Your task to perform on an android device: Open accessibility settings Image 0: 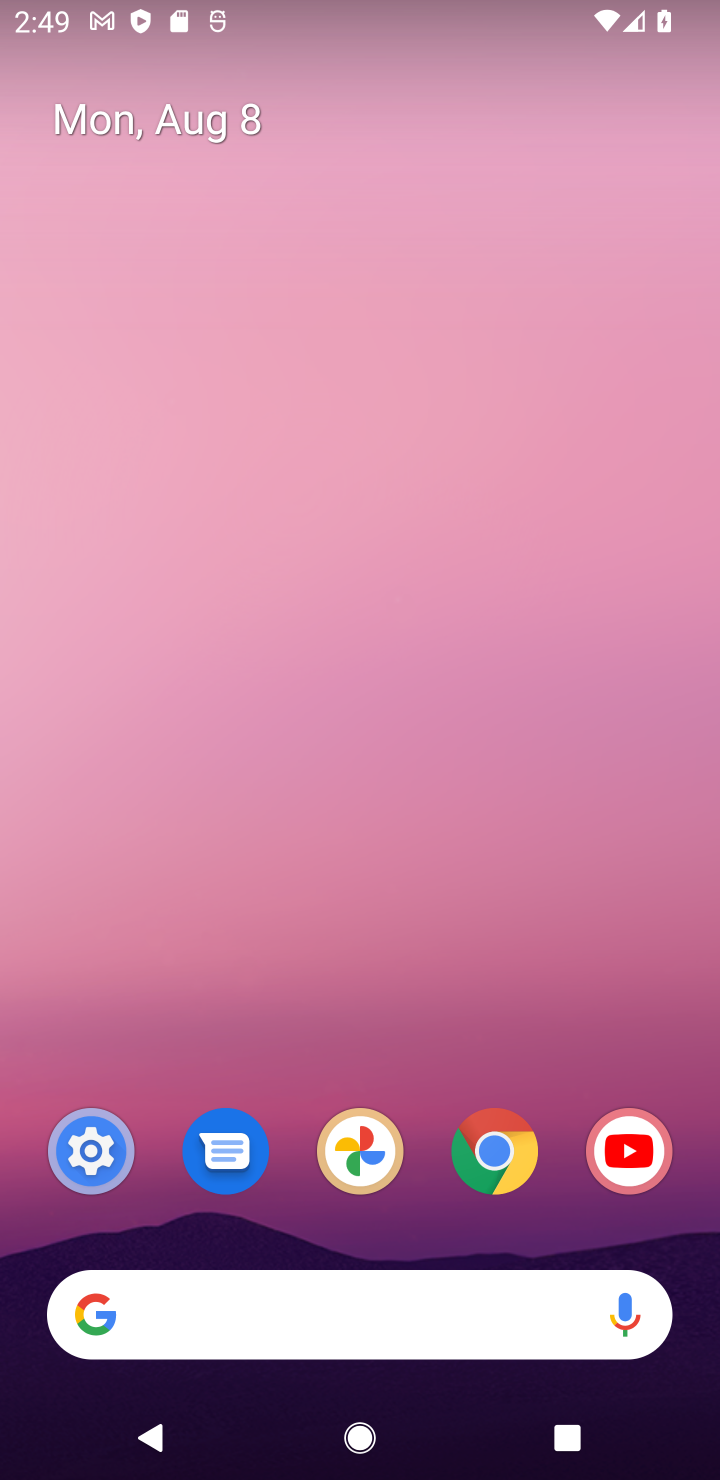
Step 0: click (115, 1158)
Your task to perform on an android device: Open accessibility settings Image 1: 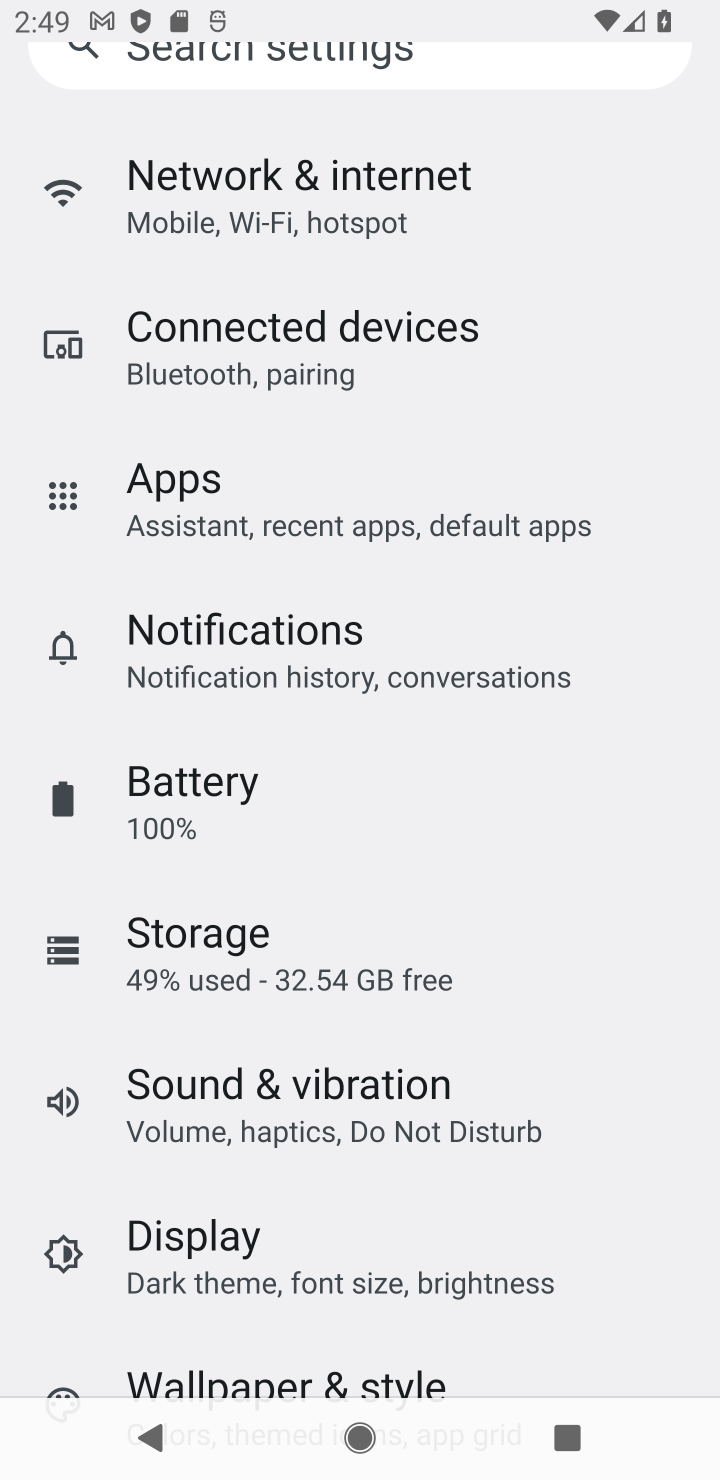
Step 1: drag from (293, 1144) to (328, 519)
Your task to perform on an android device: Open accessibility settings Image 2: 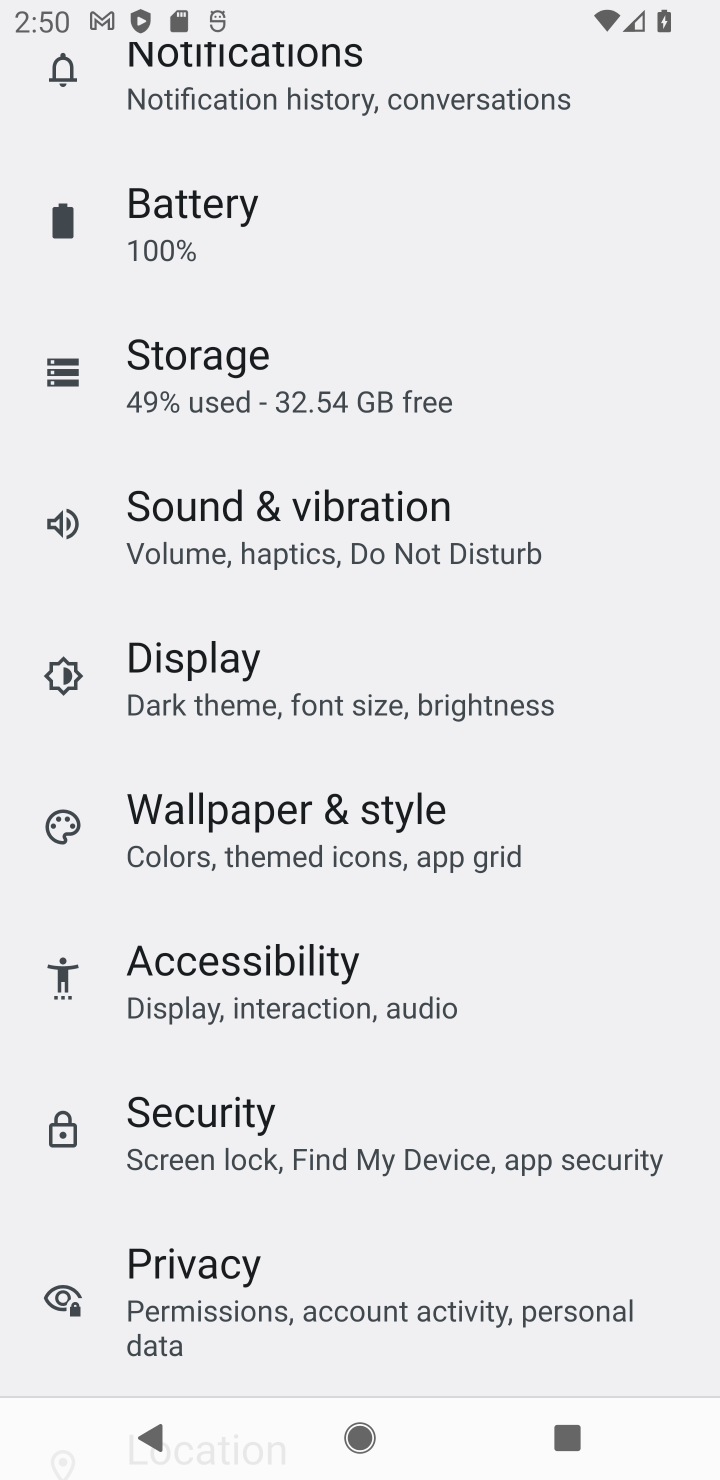
Step 2: click (251, 979)
Your task to perform on an android device: Open accessibility settings Image 3: 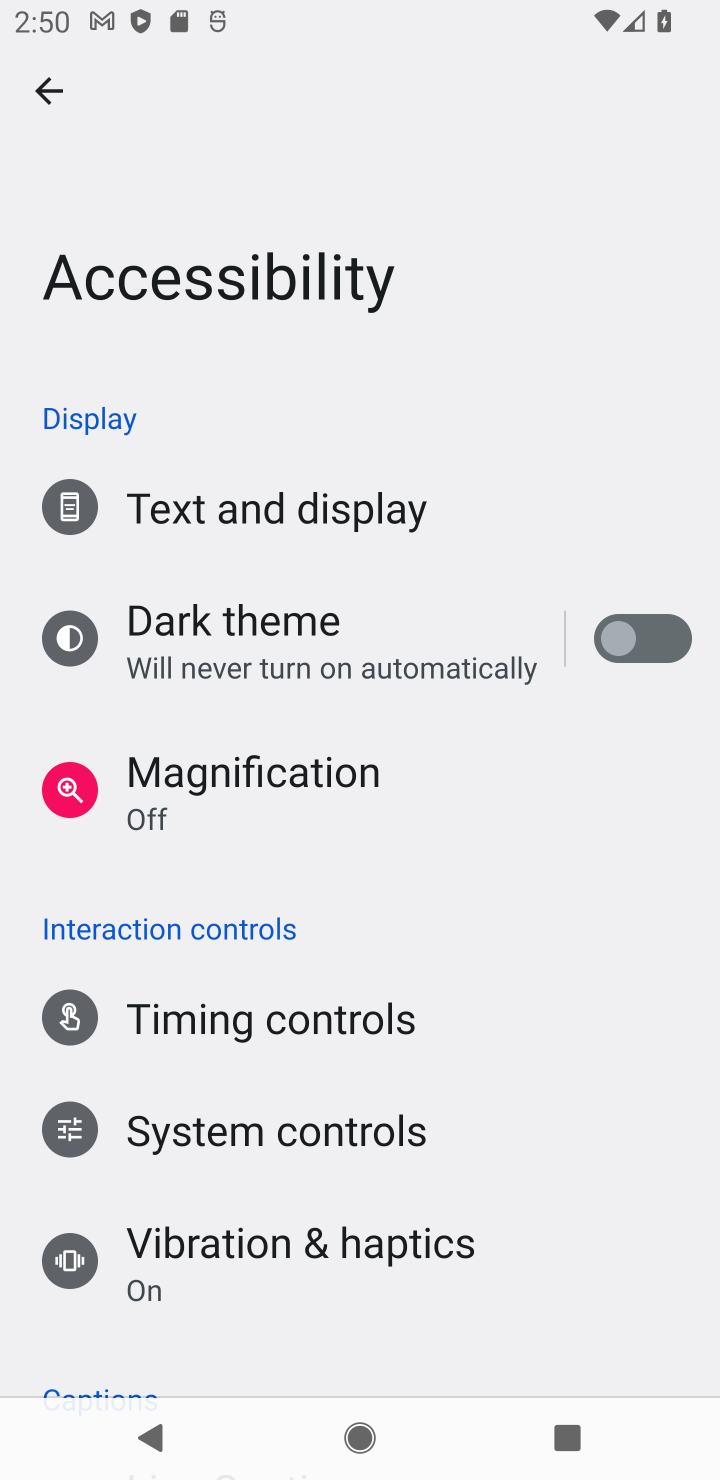
Step 3: task complete